Your task to perform on an android device: turn off location history Image 0: 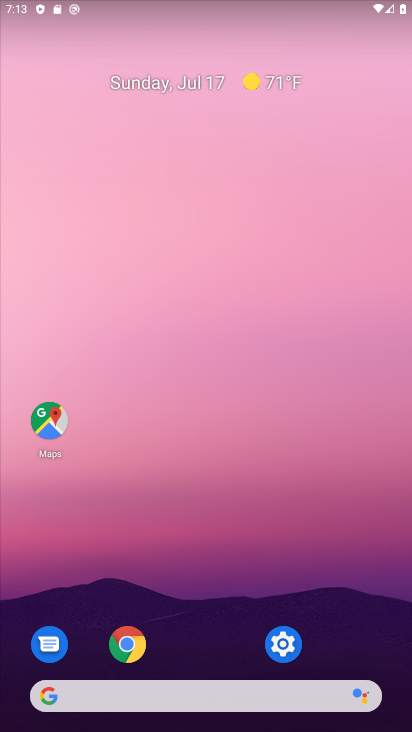
Step 0: click (290, 631)
Your task to perform on an android device: turn off location history Image 1: 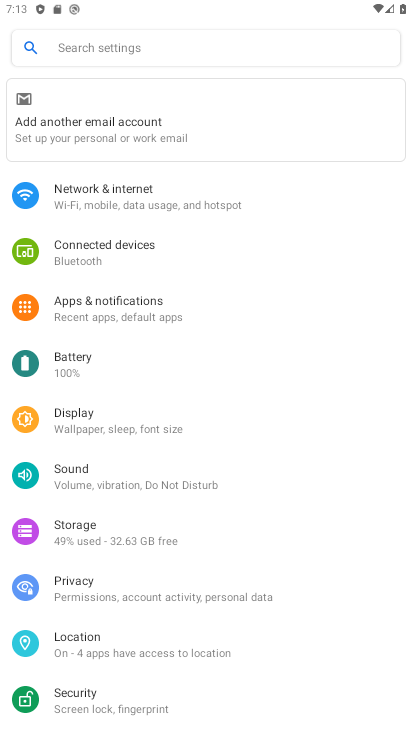
Step 1: click (90, 649)
Your task to perform on an android device: turn off location history Image 2: 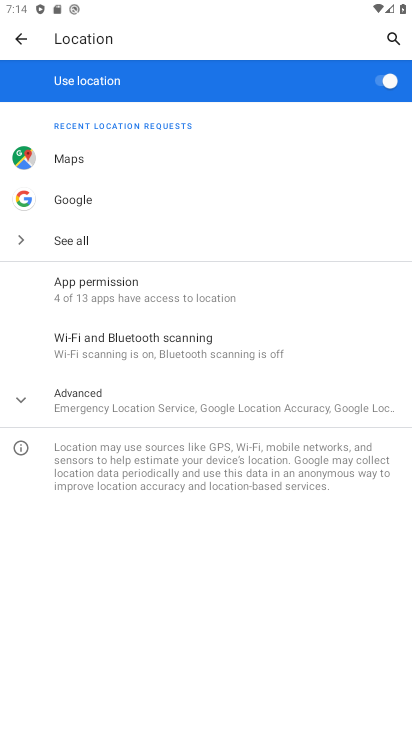
Step 2: click (21, 405)
Your task to perform on an android device: turn off location history Image 3: 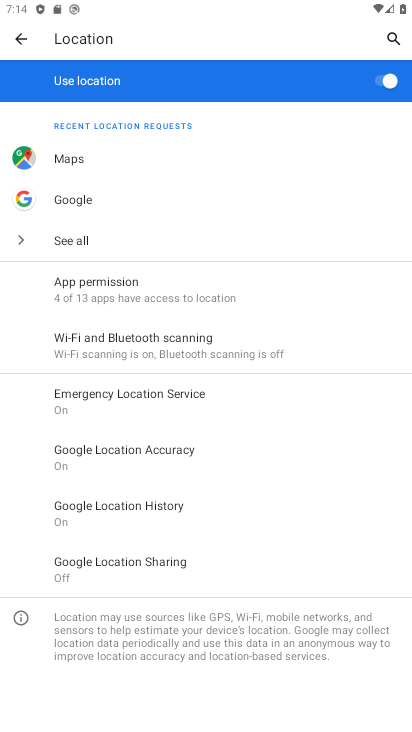
Step 3: task complete